Your task to perform on an android device: open a bookmark in the chrome app Image 0: 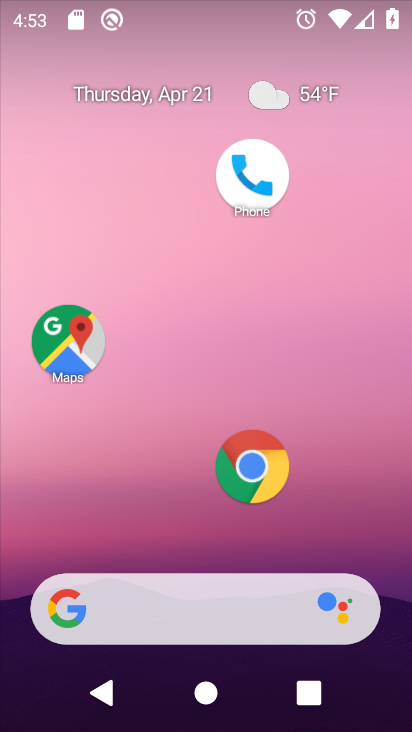
Step 0: click (266, 468)
Your task to perform on an android device: open a bookmark in the chrome app Image 1: 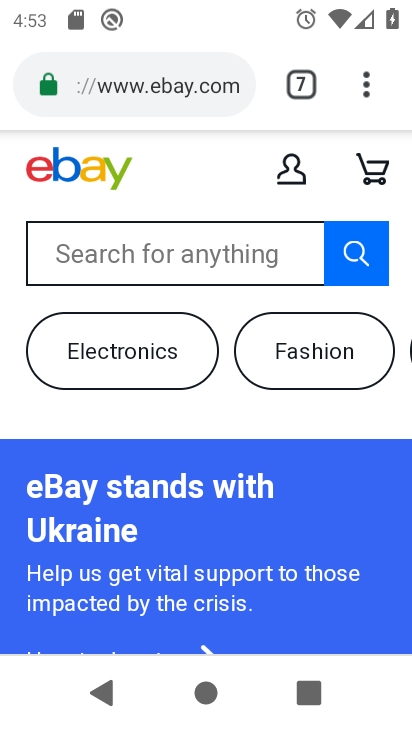
Step 1: click (365, 83)
Your task to perform on an android device: open a bookmark in the chrome app Image 2: 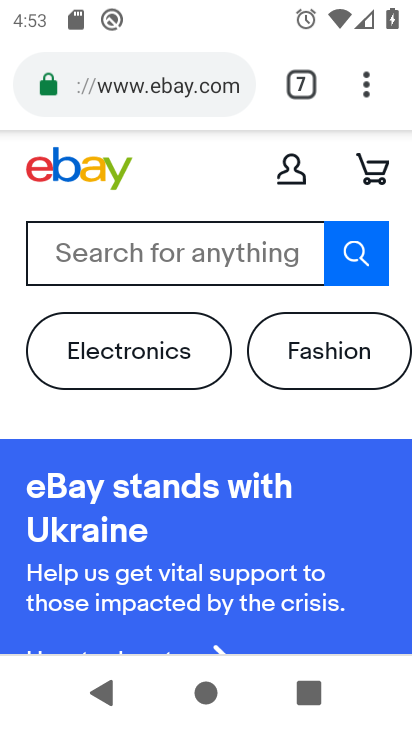
Step 2: click (371, 82)
Your task to perform on an android device: open a bookmark in the chrome app Image 3: 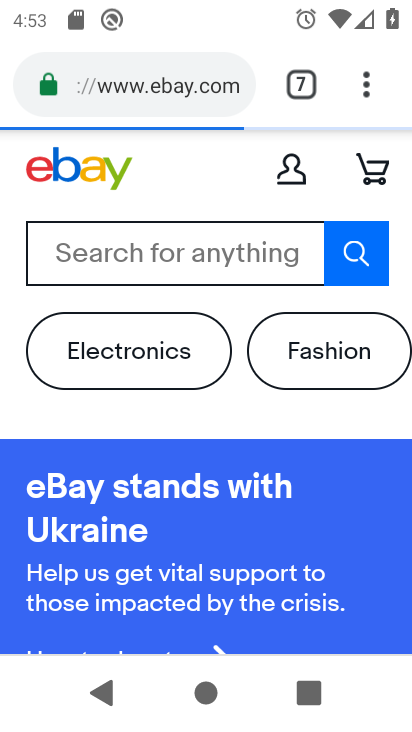
Step 3: click (371, 82)
Your task to perform on an android device: open a bookmark in the chrome app Image 4: 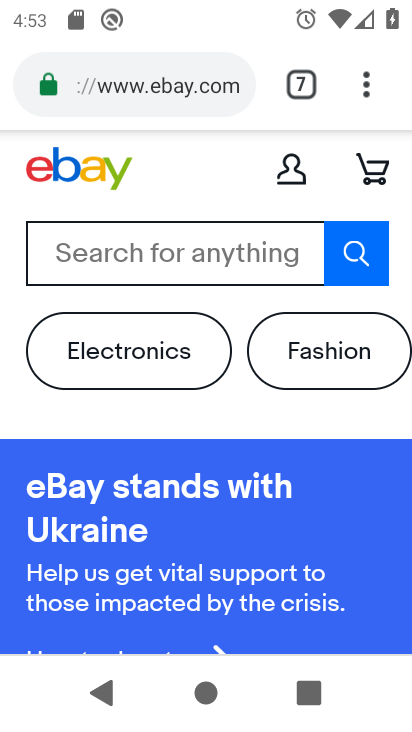
Step 4: click (371, 82)
Your task to perform on an android device: open a bookmark in the chrome app Image 5: 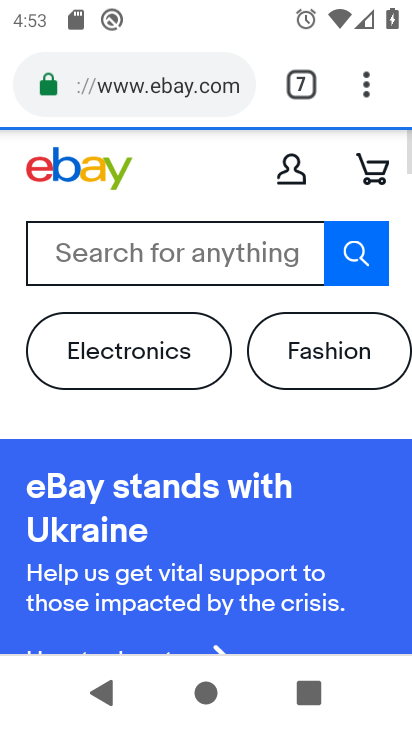
Step 5: click (371, 82)
Your task to perform on an android device: open a bookmark in the chrome app Image 6: 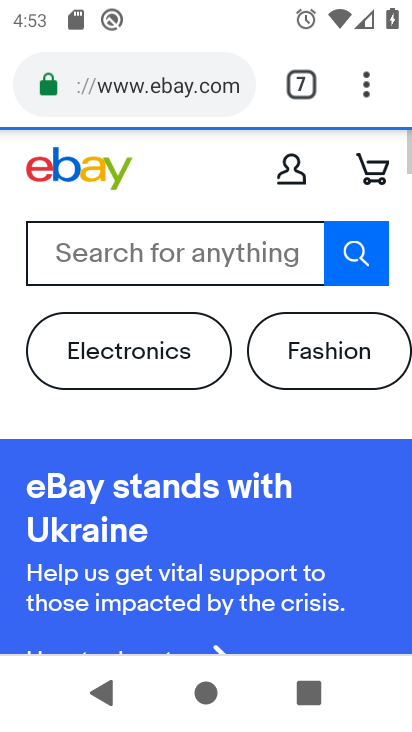
Step 6: click (371, 82)
Your task to perform on an android device: open a bookmark in the chrome app Image 7: 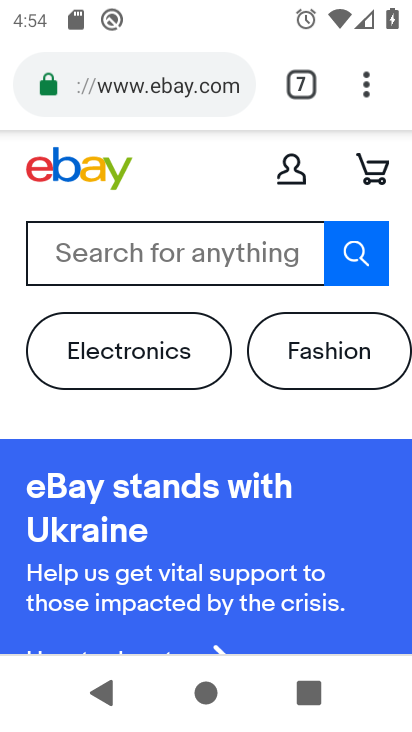
Step 7: click (374, 79)
Your task to perform on an android device: open a bookmark in the chrome app Image 8: 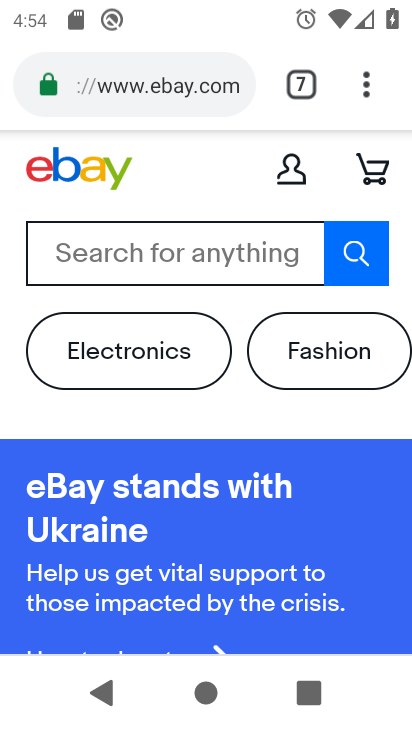
Step 8: click (367, 85)
Your task to perform on an android device: open a bookmark in the chrome app Image 9: 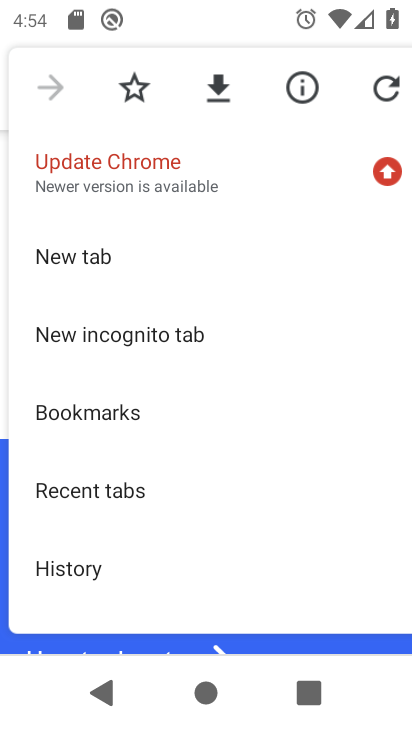
Step 9: click (157, 416)
Your task to perform on an android device: open a bookmark in the chrome app Image 10: 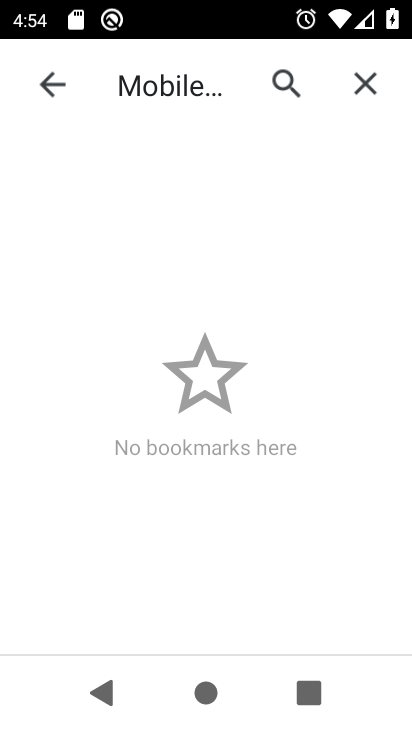
Step 10: task complete